Your task to perform on an android device: all mails in gmail Image 0: 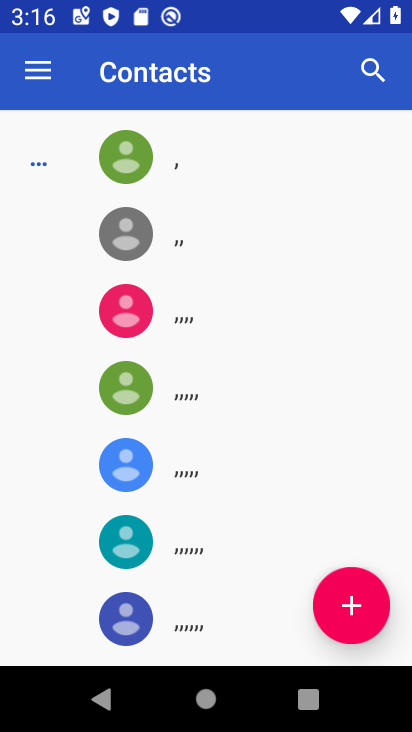
Step 0: press home button
Your task to perform on an android device: all mails in gmail Image 1: 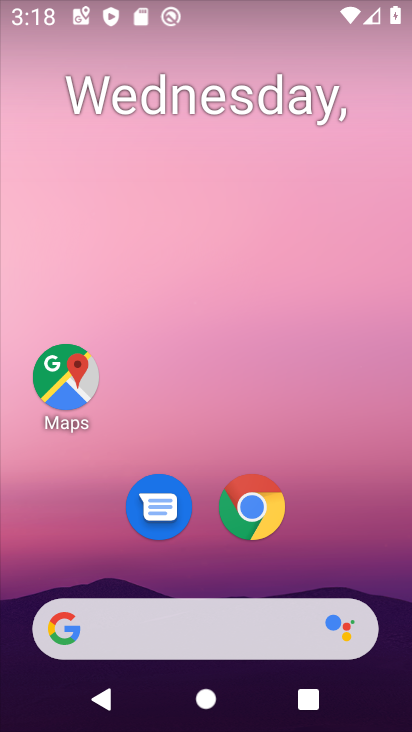
Step 1: drag from (295, 555) to (350, 277)
Your task to perform on an android device: all mails in gmail Image 2: 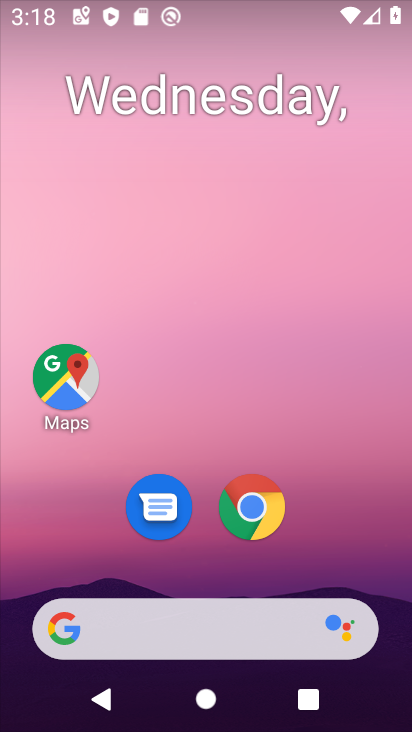
Step 2: drag from (279, 537) to (320, 193)
Your task to perform on an android device: all mails in gmail Image 3: 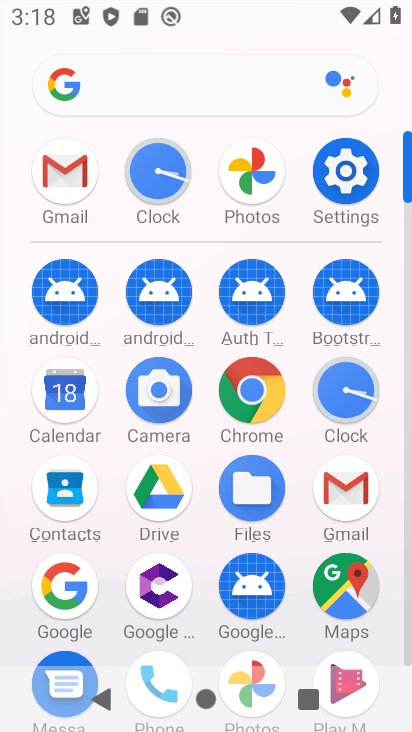
Step 3: click (69, 182)
Your task to perform on an android device: all mails in gmail Image 4: 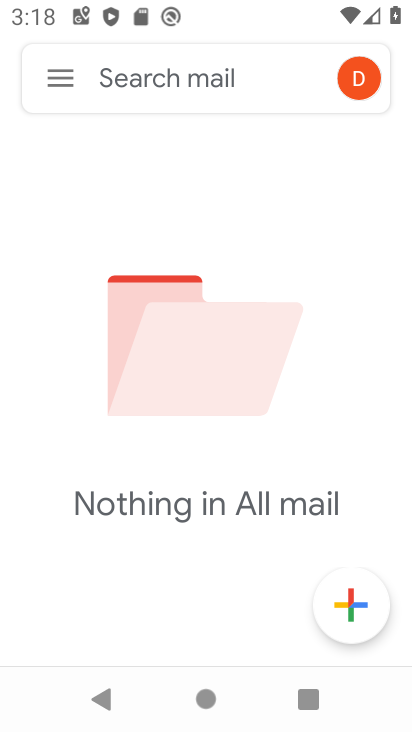
Step 4: click (40, 75)
Your task to perform on an android device: all mails in gmail Image 5: 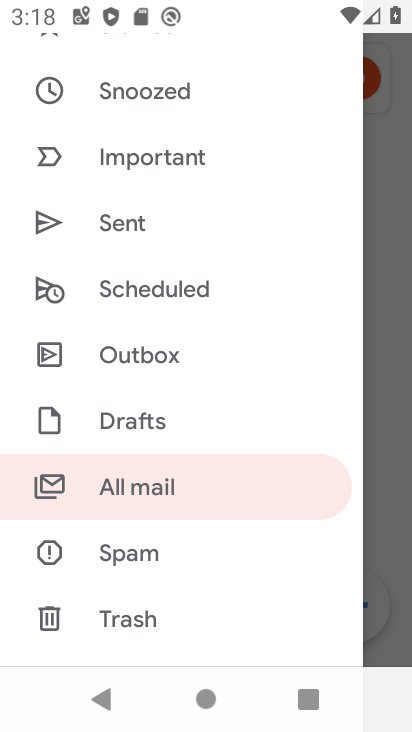
Step 5: drag from (193, 548) to (246, 318)
Your task to perform on an android device: all mails in gmail Image 6: 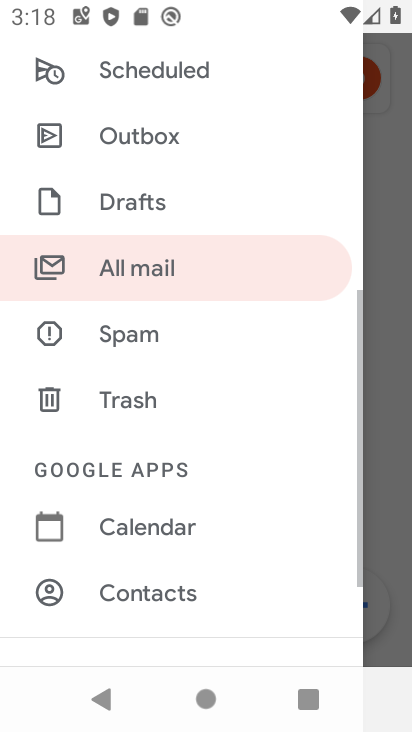
Step 6: drag from (270, 176) to (227, 505)
Your task to perform on an android device: all mails in gmail Image 7: 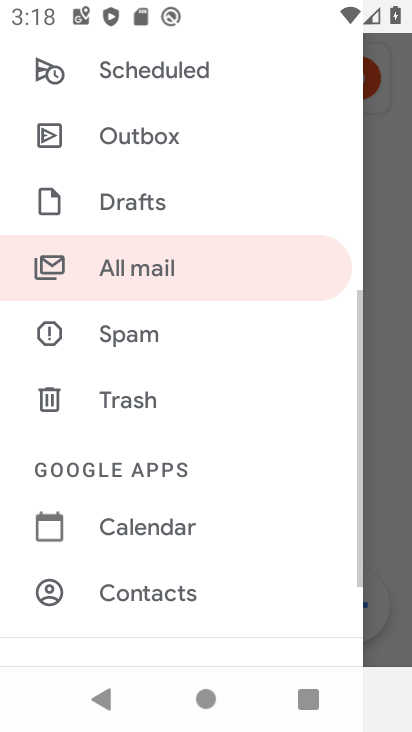
Step 7: drag from (209, 182) to (181, 377)
Your task to perform on an android device: all mails in gmail Image 8: 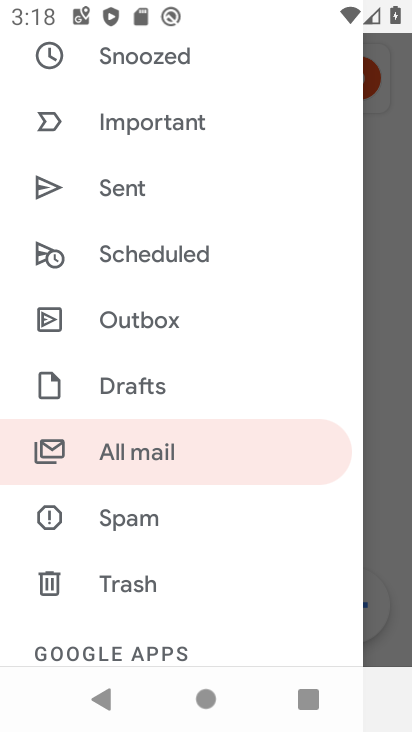
Step 8: drag from (243, 158) to (212, 556)
Your task to perform on an android device: all mails in gmail Image 9: 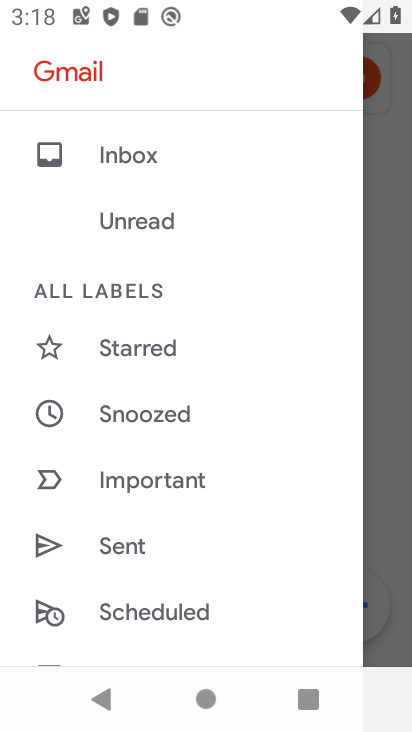
Step 9: click (173, 155)
Your task to perform on an android device: all mails in gmail Image 10: 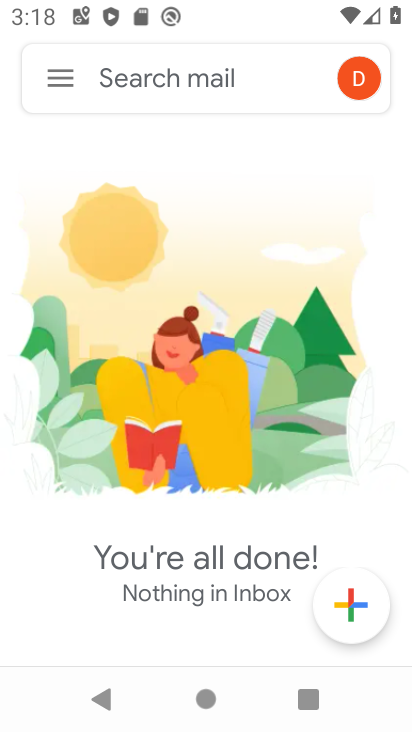
Step 10: task complete